Your task to perform on an android device: see tabs open on other devices in the chrome app Image 0: 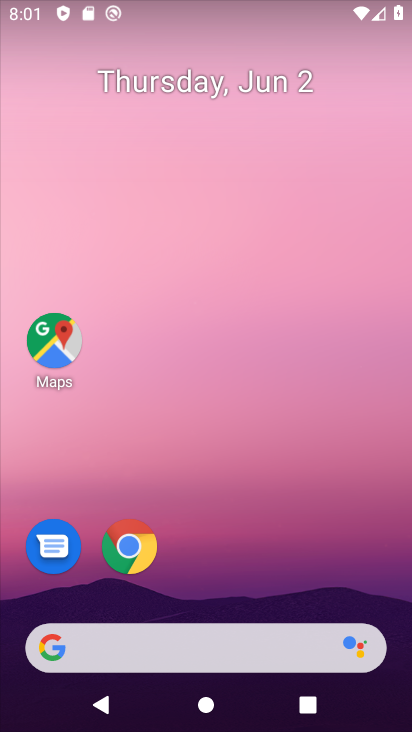
Step 0: drag from (227, 608) to (164, 214)
Your task to perform on an android device: see tabs open on other devices in the chrome app Image 1: 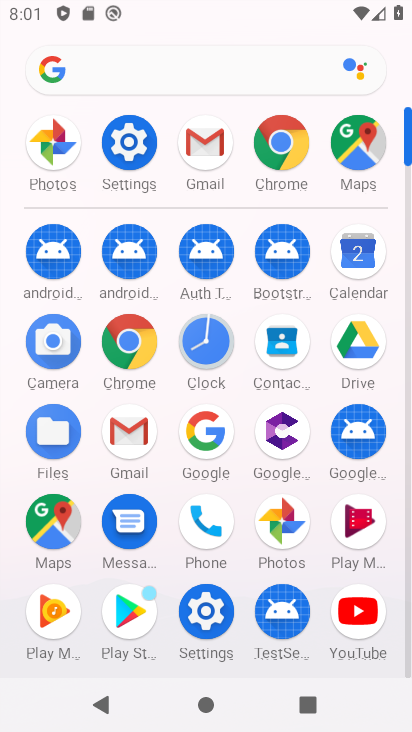
Step 1: click (274, 141)
Your task to perform on an android device: see tabs open on other devices in the chrome app Image 2: 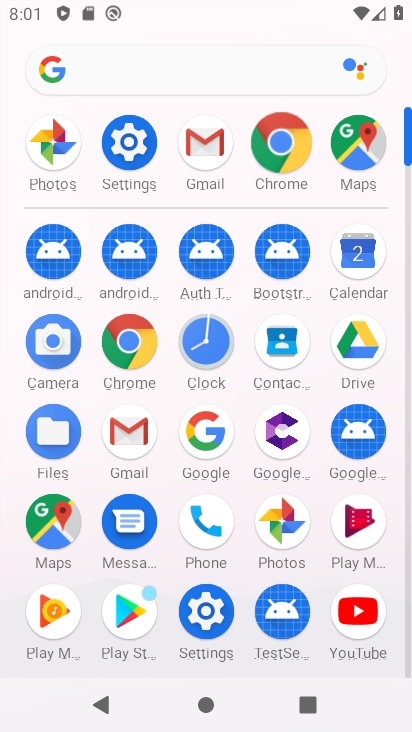
Step 2: click (274, 141)
Your task to perform on an android device: see tabs open on other devices in the chrome app Image 3: 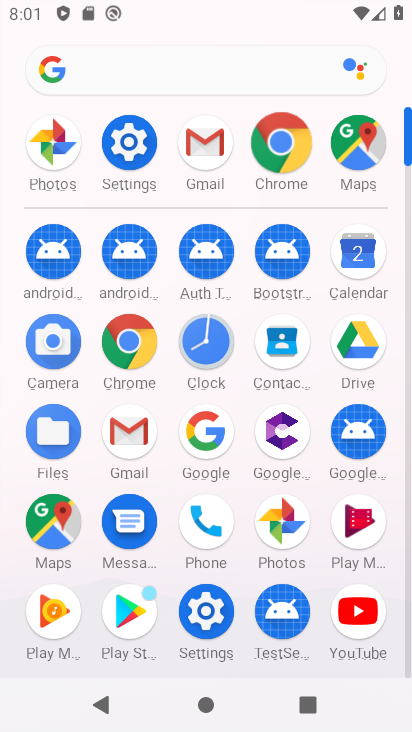
Step 3: click (273, 141)
Your task to perform on an android device: see tabs open on other devices in the chrome app Image 4: 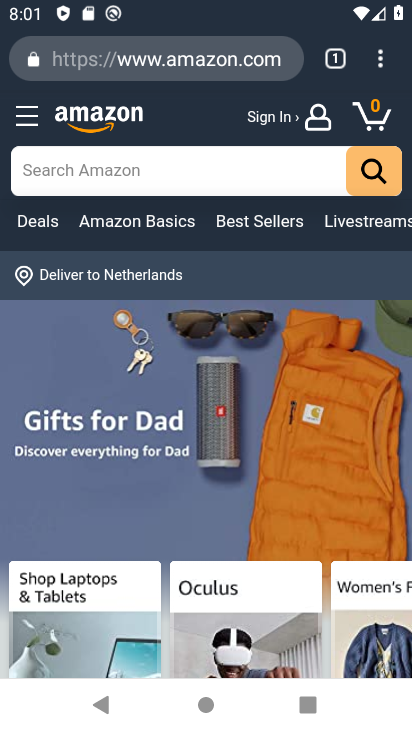
Step 4: drag from (377, 61) to (192, 281)
Your task to perform on an android device: see tabs open on other devices in the chrome app Image 5: 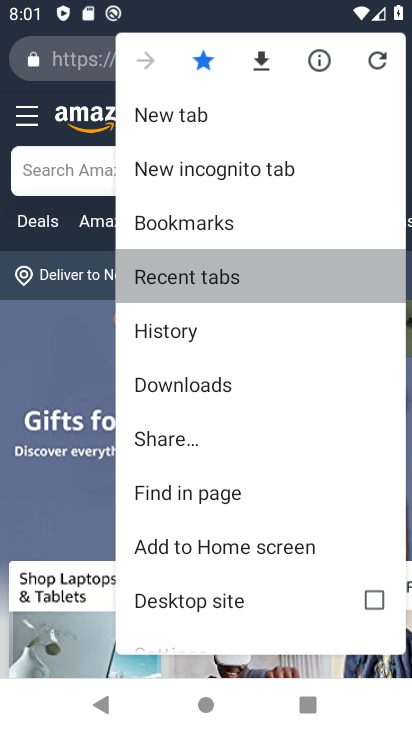
Step 5: click (192, 282)
Your task to perform on an android device: see tabs open on other devices in the chrome app Image 6: 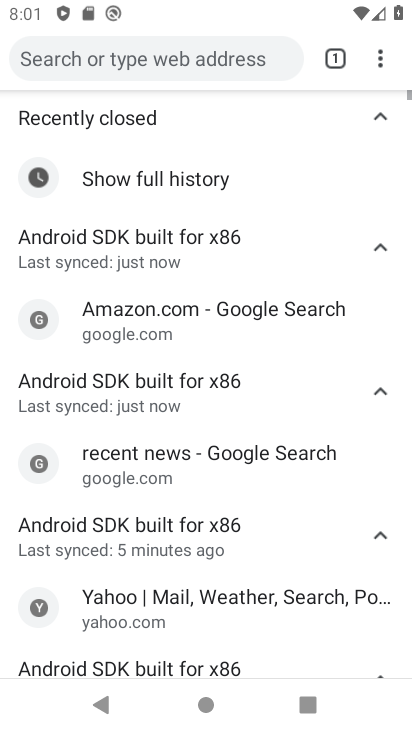
Step 6: task complete